Your task to perform on an android device: Turn on the flashlight Image 0: 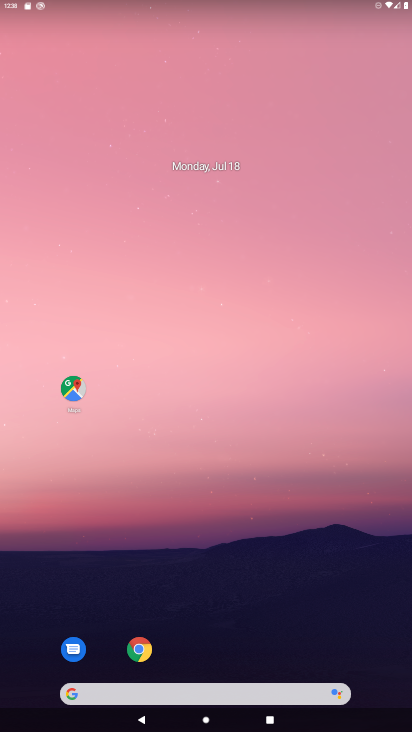
Step 0: drag from (199, 661) to (400, 78)
Your task to perform on an android device: Turn on the flashlight Image 1: 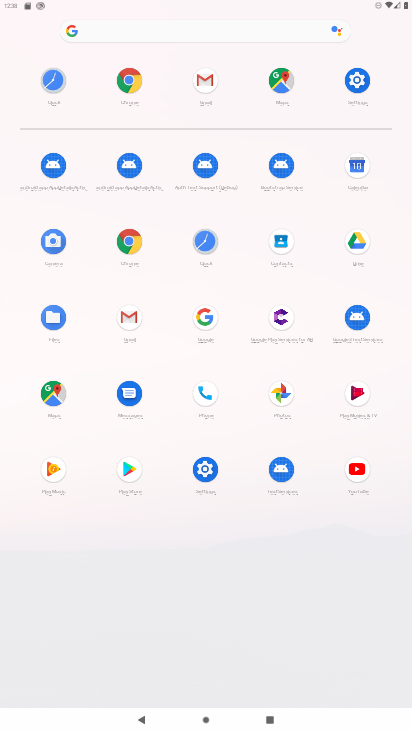
Step 1: click (360, 102)
Your task to perform on an android device: Turn on the flashlight Image 2: 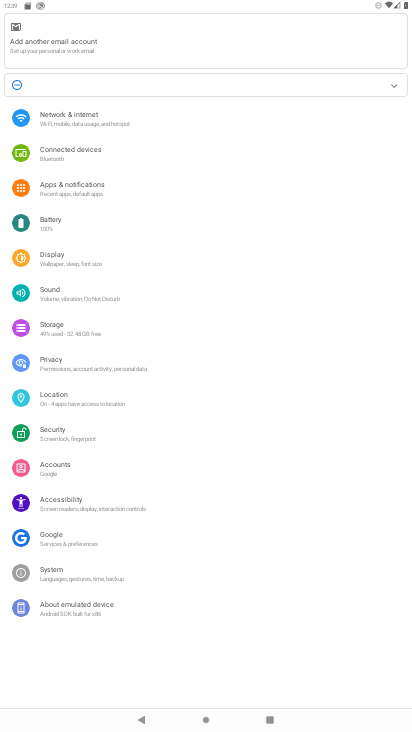
Step 2: task complete